Your task to perform on an android device: Show me the alarms in the clock app Image 0: 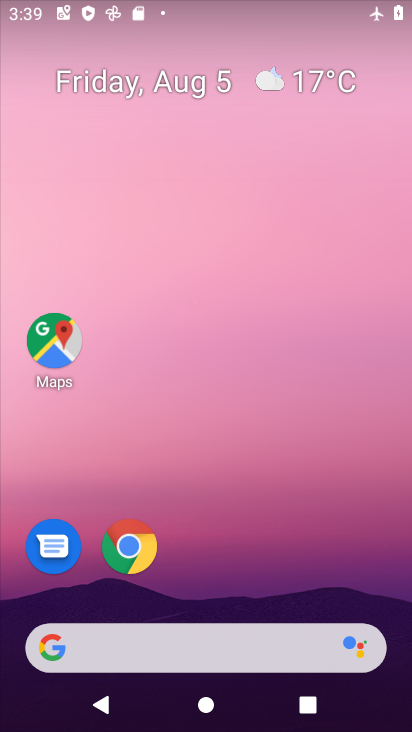
Step 0: press home button
Your task to perform on an android device: Show me the alarms in the clock app Image 1: 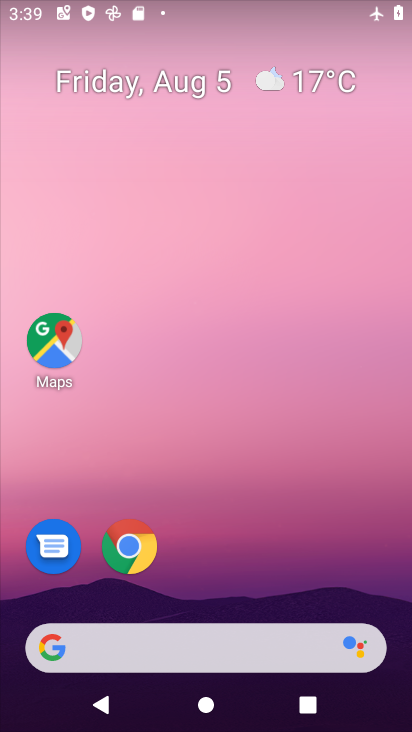
Step 1: drag from (321, 588) to (339, 183)
Your task to perform on an android device: Show me the alarms in the clock app Image 2: 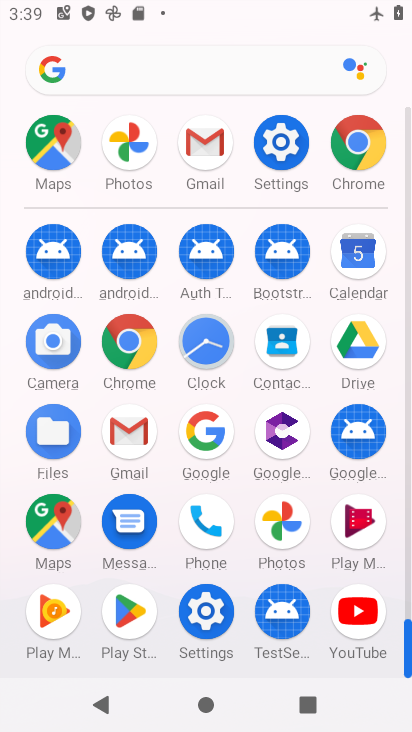
Step 2: click (199, 345)
Your task to perform on an android device: Show me the alarms in the clock app Image 3: 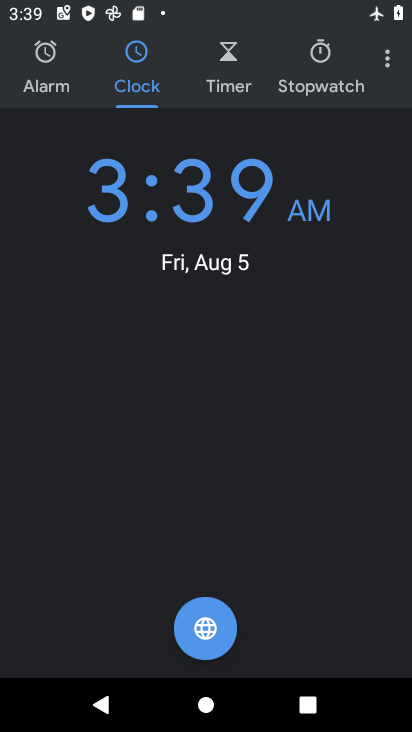
Step 3: click (55, 65)
Your task to perform on an android device: Show me the alarms in the clock app Image 4: 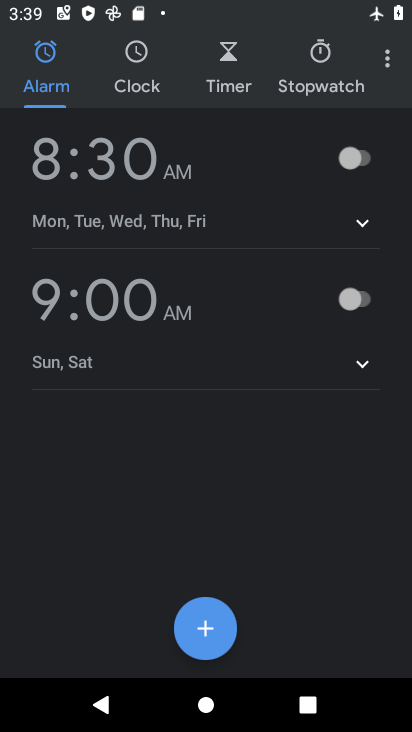
Step 4: task complete